Your task to perform on an android device: check data usage Image 0: 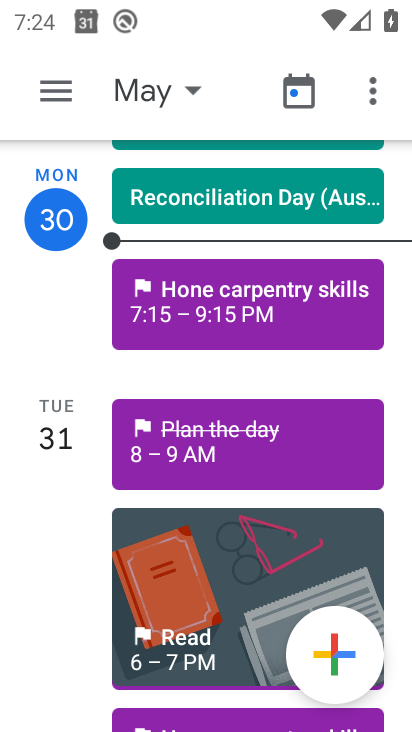
Step 0: press home button
Your task to perform on an android device: check data usage Image 1: 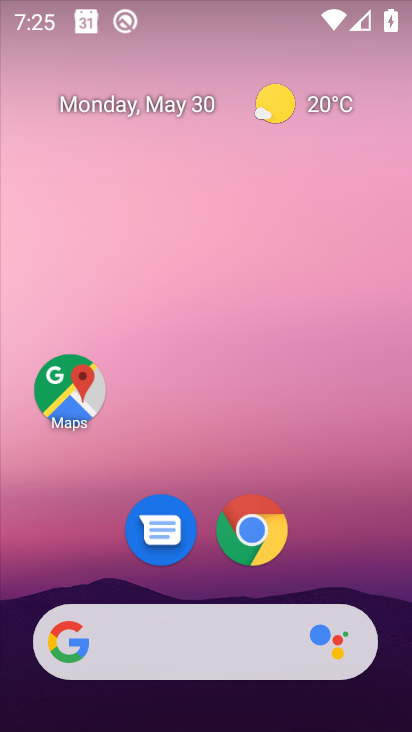
Step 1: drag from (46, 550) to (258, 153)
Your task to perform on an android device: check data usage Image 2: 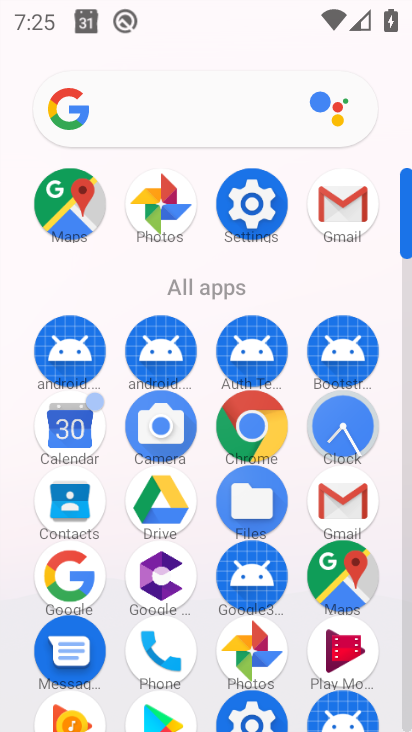
Step 2: click (230, 207)
Your task to perform on an android device: check data usage Image 3: 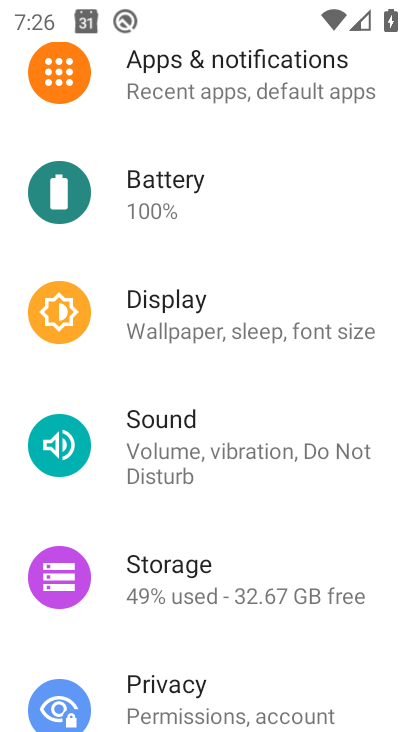
Step 3: drag from (221, 74) to (202, 662)
Your task to perform on an android device: check data usage Image 4: 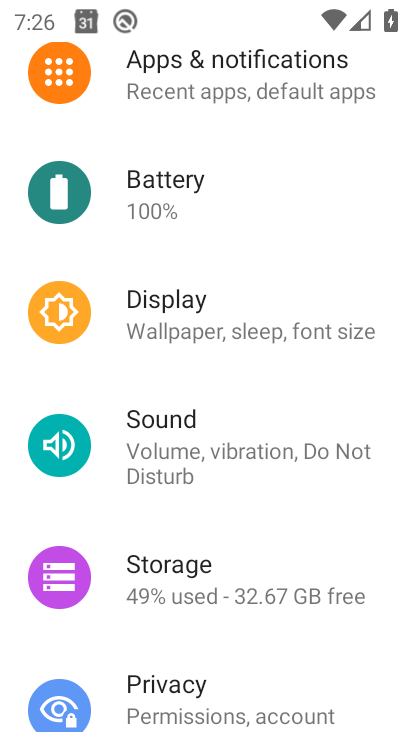
Step 4: drag from (50, 127) to (75, 687)
Your task to perform on an android device: check data usage Image 5: 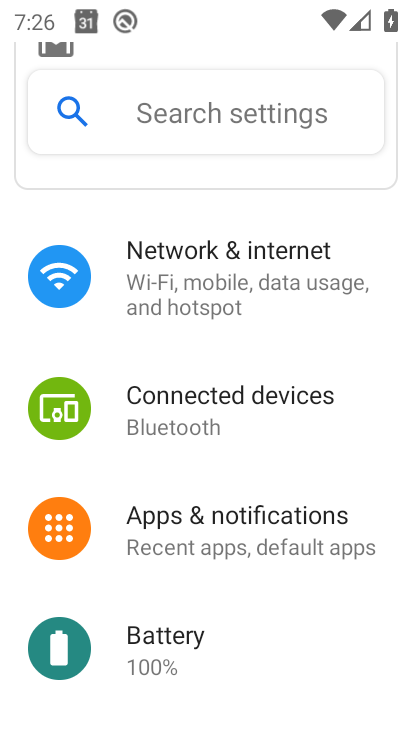
Step 5: click (177, 255)
Your task to perform on an android device: check data usage Image 6: 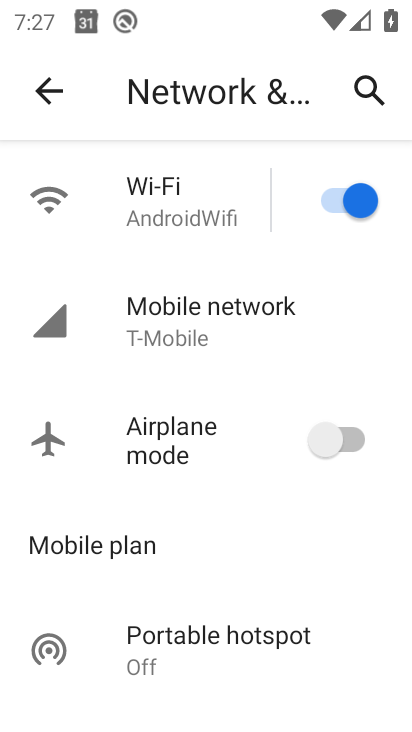
Step 6: click (187, 332)
Your task to perform on an android device: check data usage Image 7: 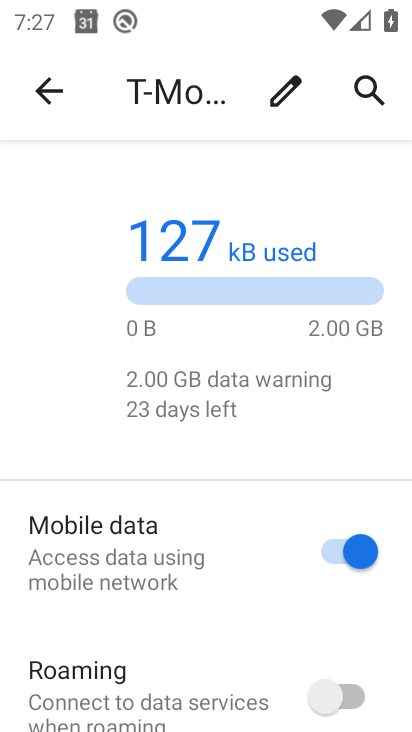
Step 7: task complete